Your task to perform on an android device: Show me popular games on the Play Store Image 0: 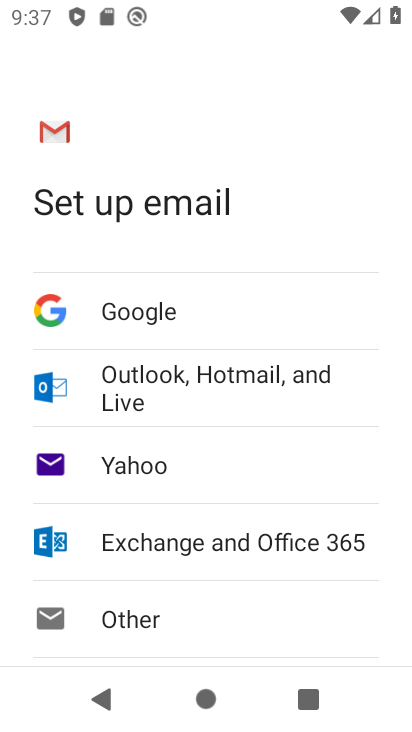
Step 0: press home button
Your task to perform on an android device: Show me popular games on the Play Store Image 1: 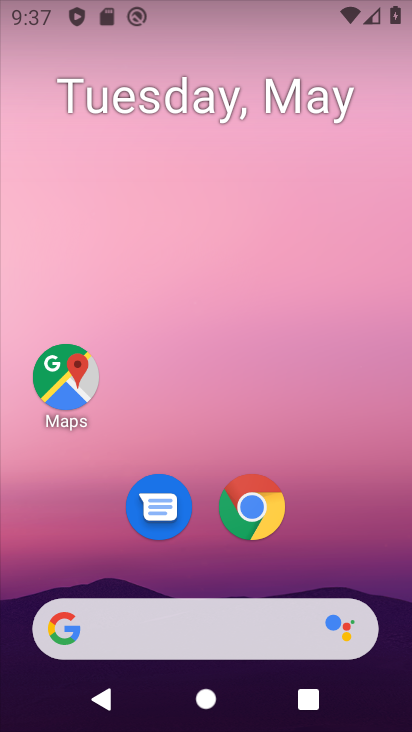
Step 1: drag from (329, 494) to (186, 2)
Your task to perform on an android device: Show me popular games on the Play Store Image 2: 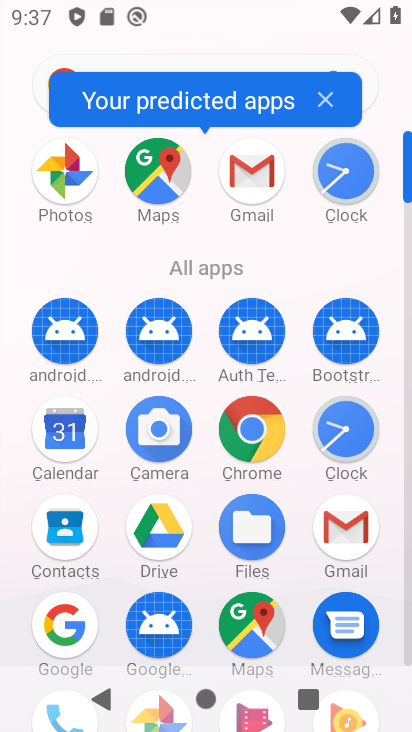
Step 2: drag from (203, 584) to (153, 157)
Your task to perform on an android device: Show me popular games on the Play Store Image 3: 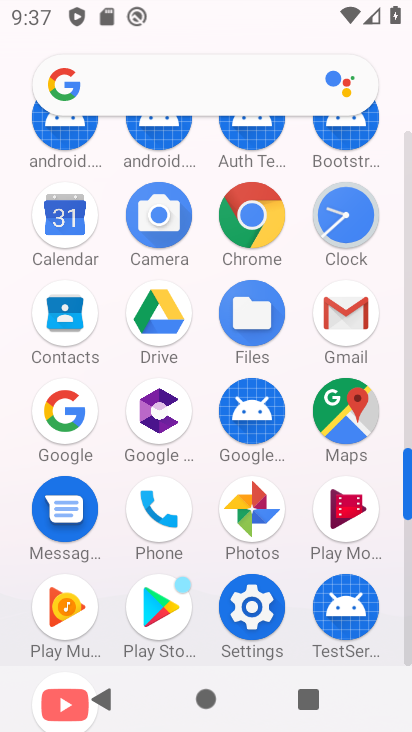
Step 3: click (149, 611)
Your task to perform on an android device: Show me popular games on the Play Store Image 4: 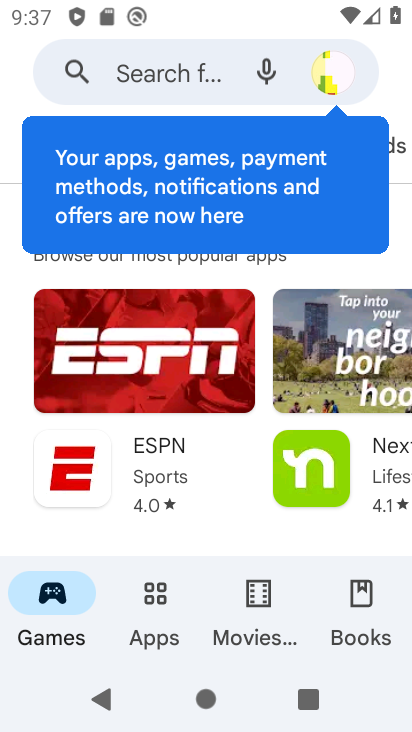
Step 4: task complete